Your task to perform on an android device: turn on improve location accuracy Image 0: 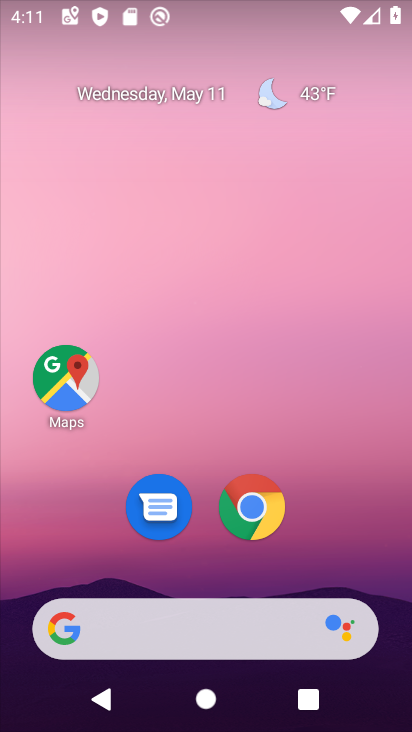
Step 0: drag from (235, 596) to (276, 20)
Your task to perform on an android device: turn on improve location accuracy Image 1: 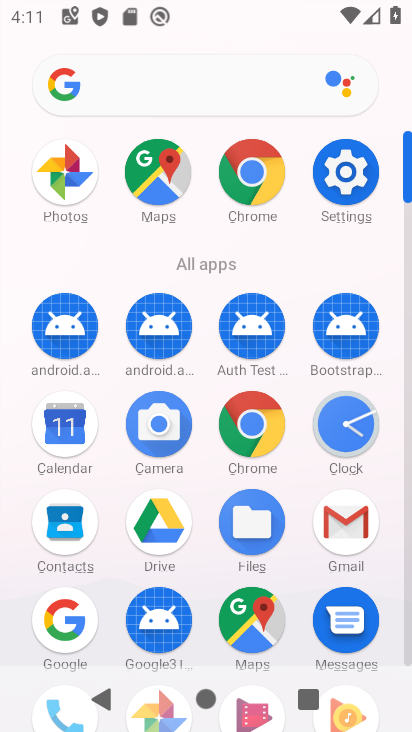
Step 1: click (359, 192)
Your task to perform on an android device: turn on improve location accuracy Image 2: 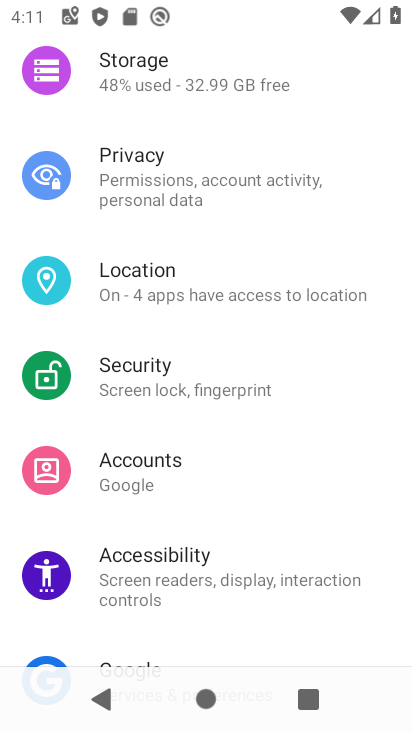
Step 2: drag from (249, 290) to (252, 571)
Your task to perform on an android device: turn on improve location accuracy Image 3: 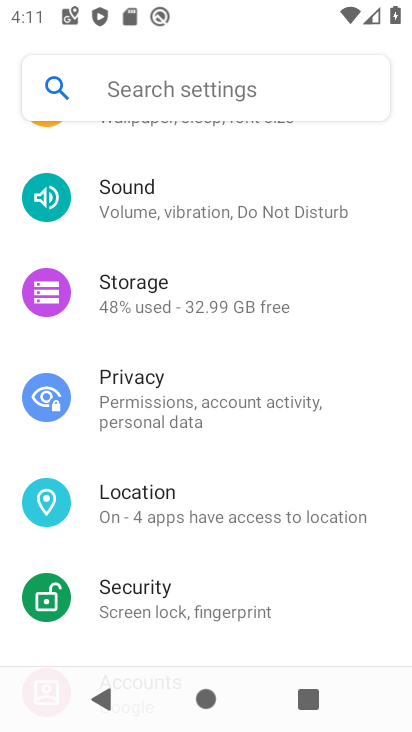
Step 3: drag from (232, 322) to (238, 532)
Your task to perform on an android device: turn on improve location accuracy Image 4: 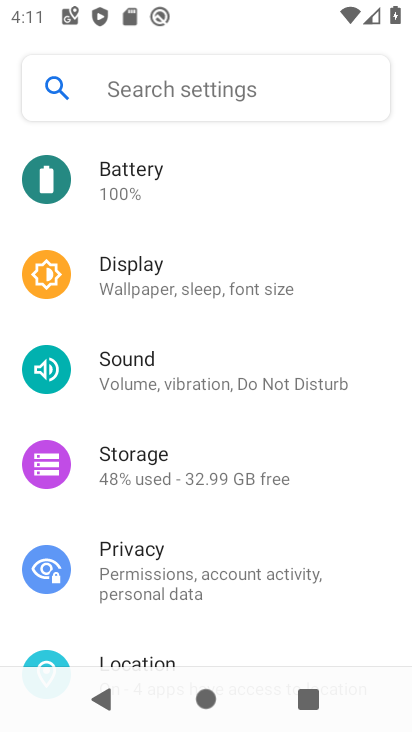
Step 4: drag from (193, 480) to (193, 303)
Your task to perform on an android device: turn on improve location accuracy Image 5: 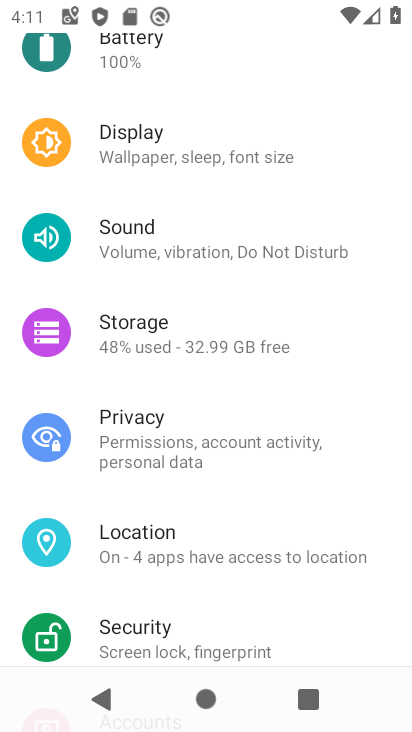
Step 5: click (213, 550)
Your task to perform on an android device: turn on improve location accuracy Image 6: 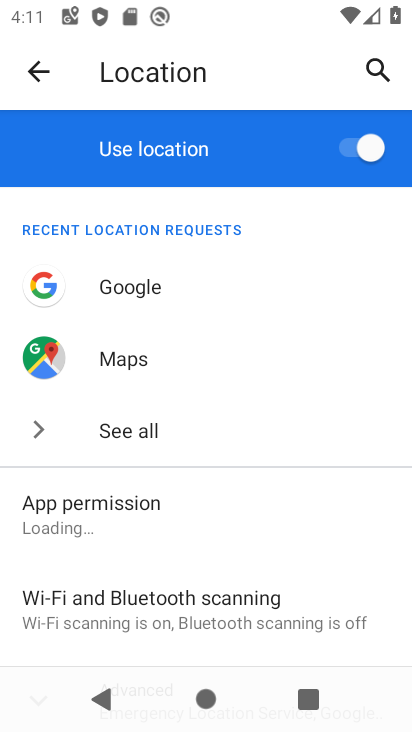
Step 6: drag from (187, 544) to (204, 287)
Your task to perform on an android device: turn on improve location accuracy Image 7: 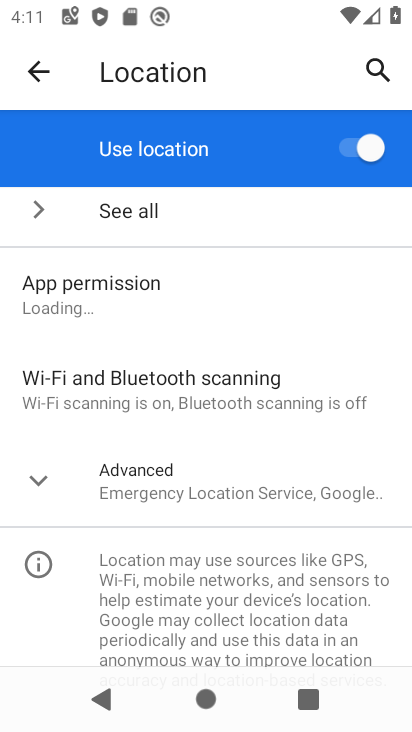
Step 7: click (187, 480)
Your task to perform on an android device: turn on improve location accuracy Image 8: 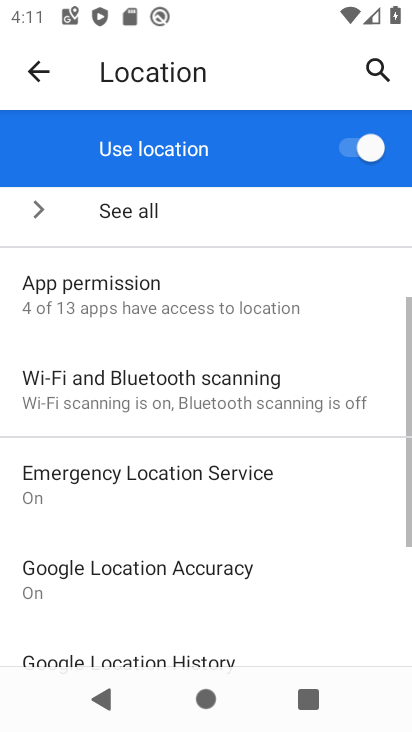
Step 8: drag from (211, 563) to (215, 395)
Your task to perform on an android device: turn on improve location accuracy Image 9: 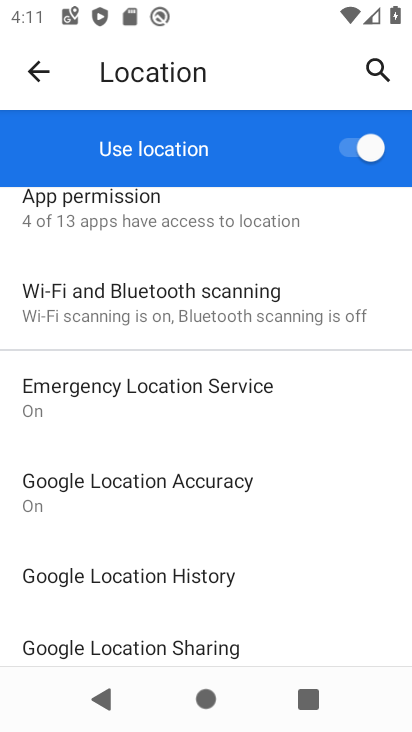
Step 9: click (218, 492)
Your task to perform on an android device: turn on improve location accuracy Image 10: 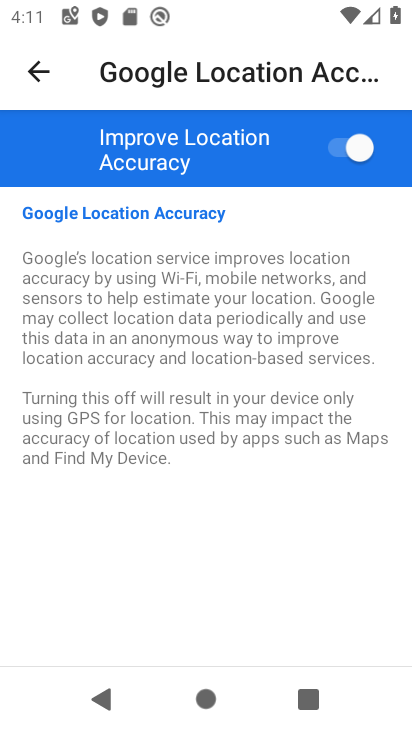
Step 10: task complete